Your task to perform on an android device: Open the stopwatch Image 0: 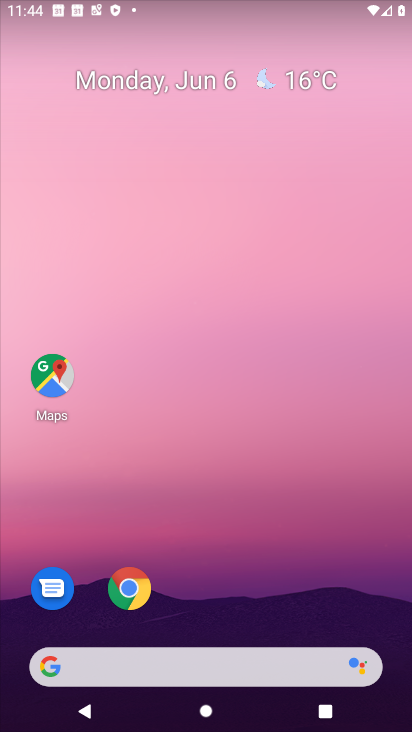
Step 0: drag from (232, 633) to (178, 106)
Your task to perform on an android device: Open the stopwatch Image 1: 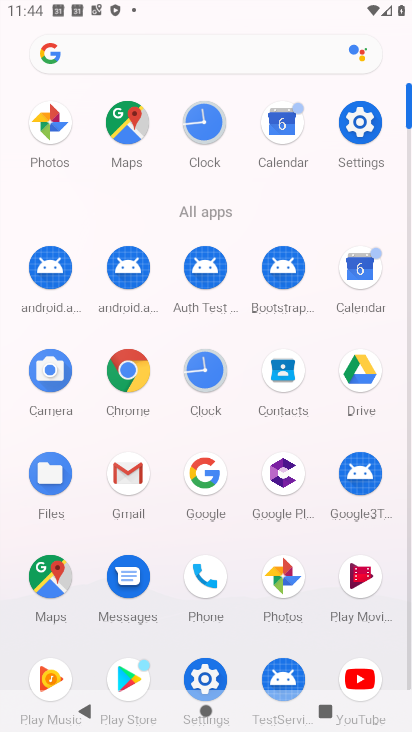
Step 1: click (197, 368)
Your task to perform on an android device: Open the stopwatch Image 2: 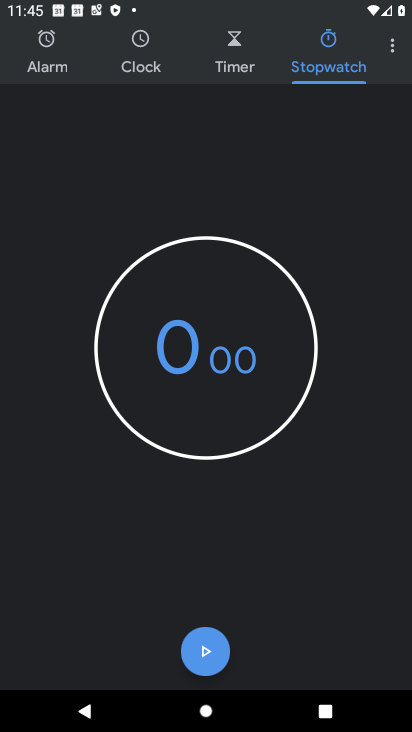
Step 2: task complete